Your task to perform on an android device: find snoozed emails in the gmail app Image 0: 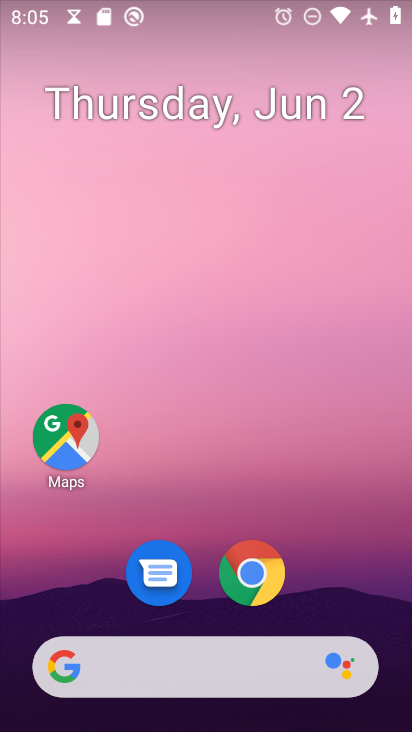
Step 0: press home button
Your task to perform on an android device: find snoozed emails in the gmail app Image 1: 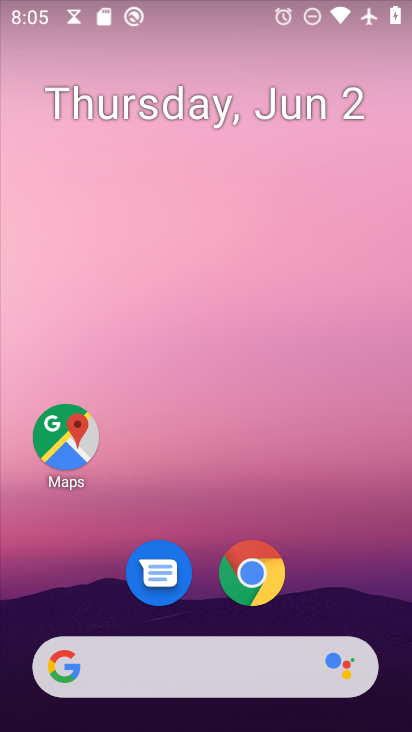
Step 1: drag from (200, 663) to (314, 75)
Your task to perform on an android device: find snoozed emails in the gmail app Image 2: 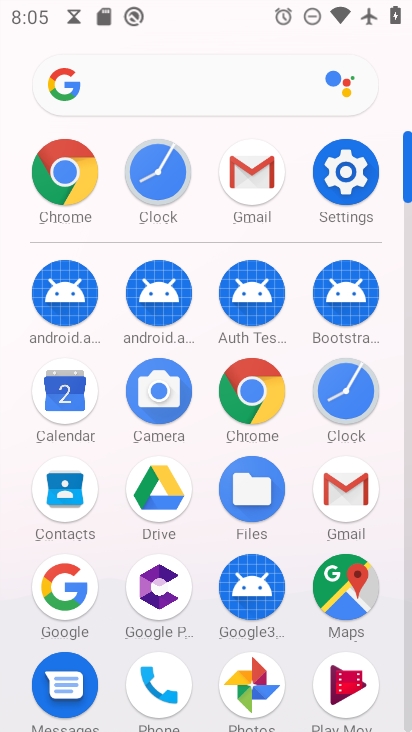
Step 2: click (266, 185)
Your task to perform on an android device: find snoozed emails in the gmail app Image 3: 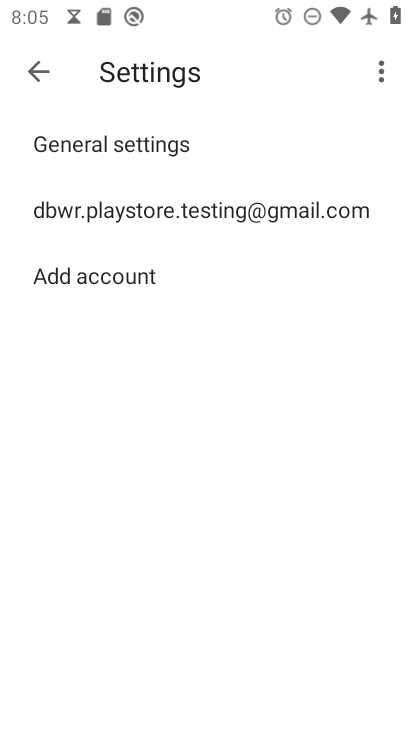
Step 3: click (47, 71)
Your task to perform on an android device: find snoozed emails in the gmail app Image 4: 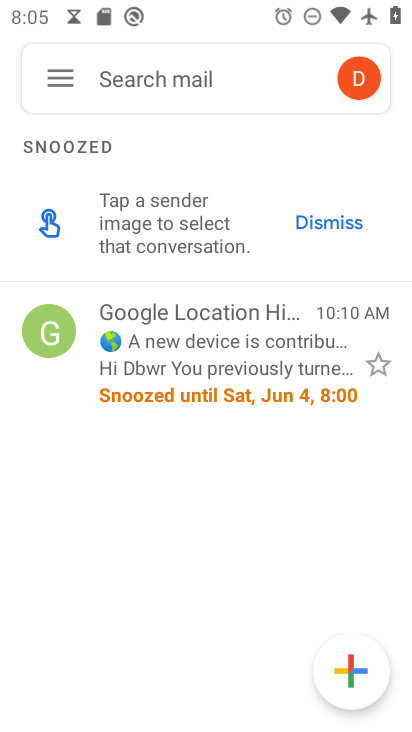
Step 4: task complete